Your task to perform on an android device: What's the weather like in New York? Image 0: 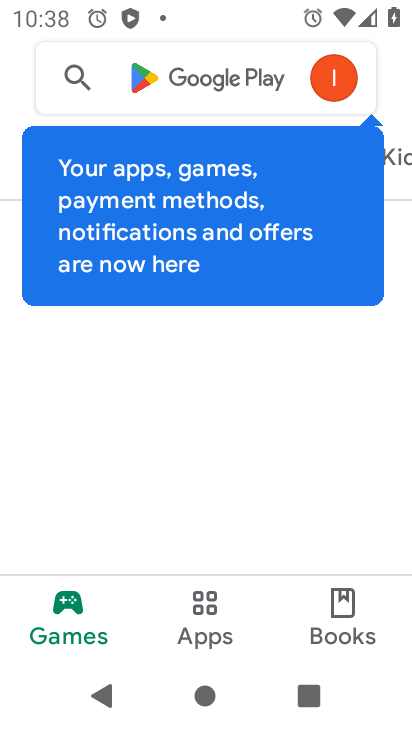
Step 0: press home button
Your task to perform on an android device: What's the weather like in New York? Image 1: 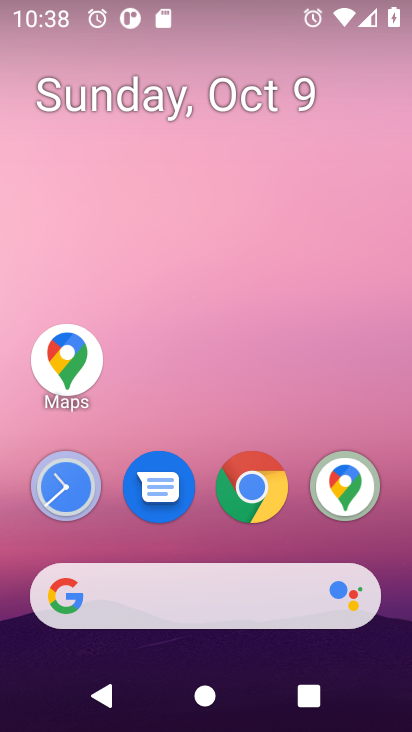
Step 1: click (252, 488)
Your task to perform on an android device: What's the weather like in New York? Image 2: 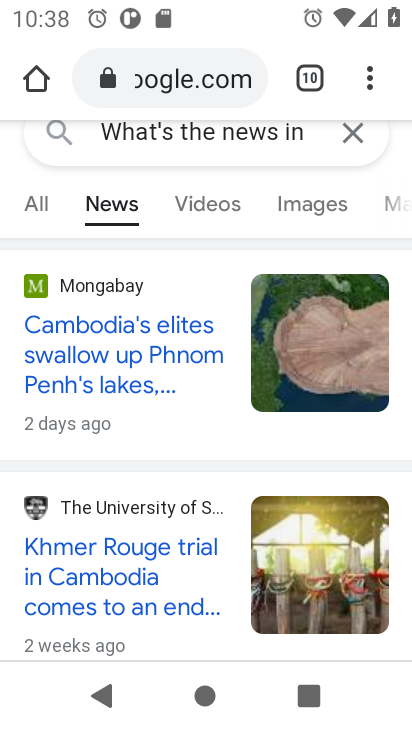
Step 2: click (351, 129)
Your task to perform on an android device: What's the weather like in New York? Image 3: 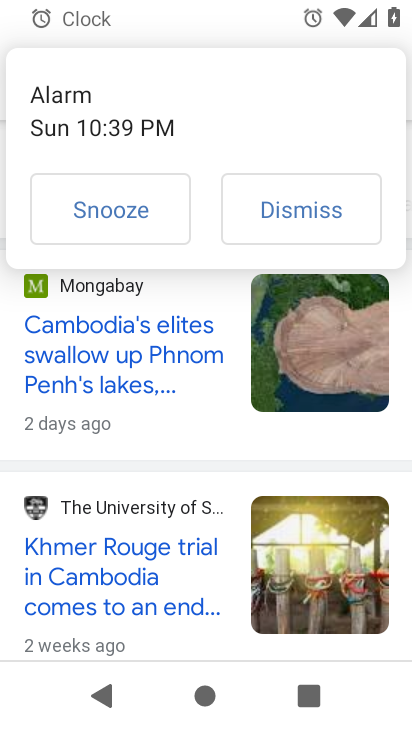
Step 3: click (121, 212)
Your task to perform on an android device: What's the weather like in New York? Image 4: 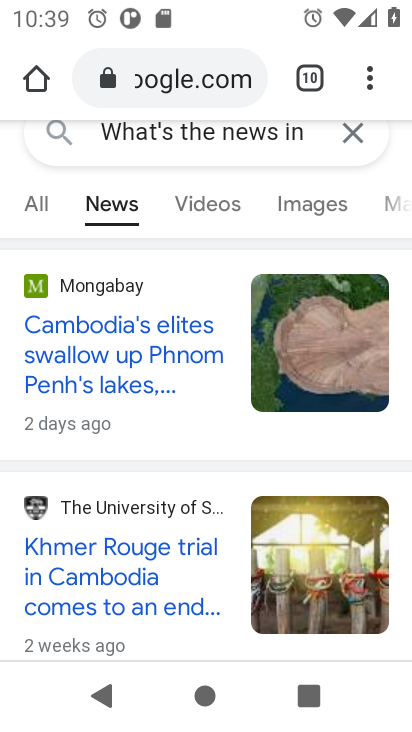
Step 4: click (347, 130)
Your task to perform on an android device: What's the weather like in New York? Image 5: 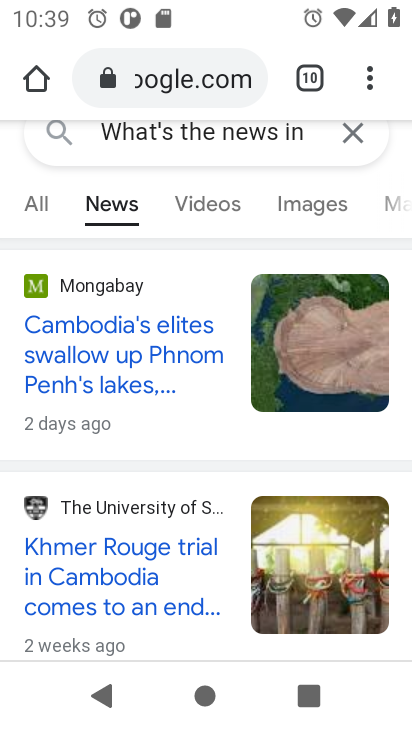
Step 5: click (351, 129)
Your task to perform on an android device: What's the weather like in New York? Image 6: 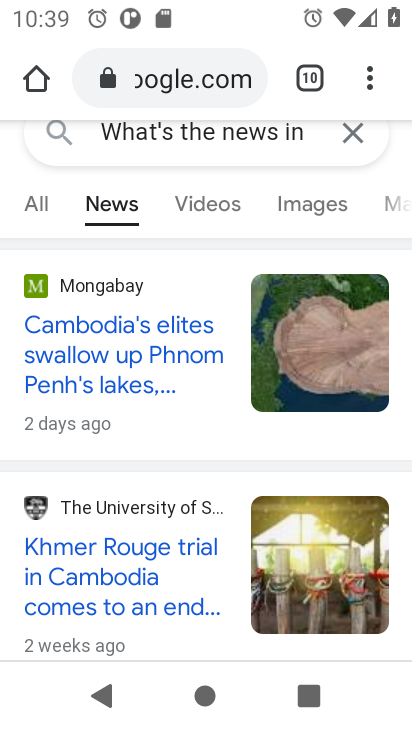
Step 6: click (351, 129)
Your task to perform on an android device: What's the weather like in New York? Image 7: 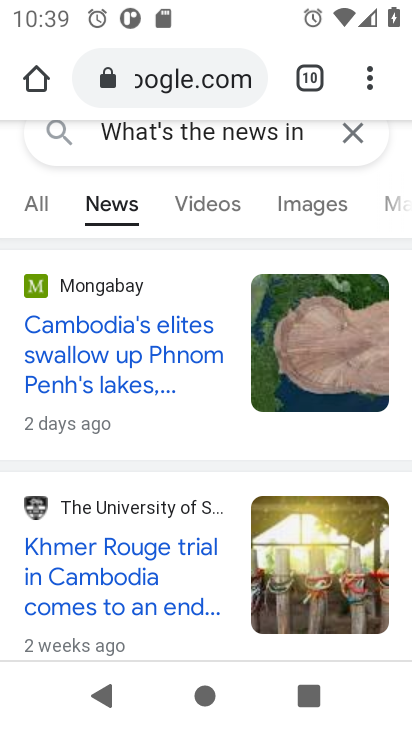
Step 7: drag from (197, 184) to (215, 458)
Your task to perform on an android device: What's the weather like in New York? Image 8: 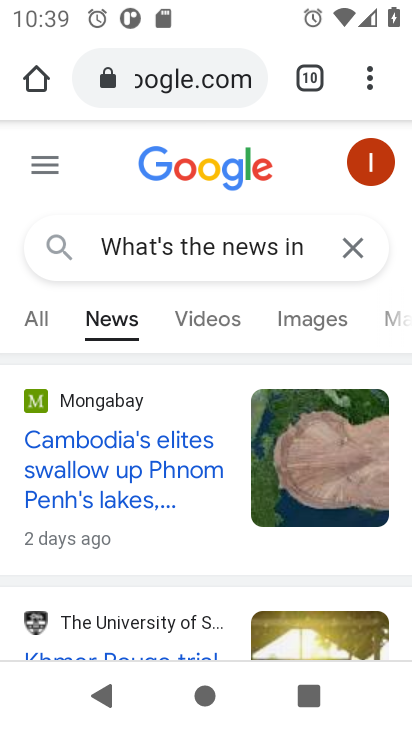
Step 8: click (356, 247)
Your task to perform on an android device: What's the weather like in New York? Image 9: 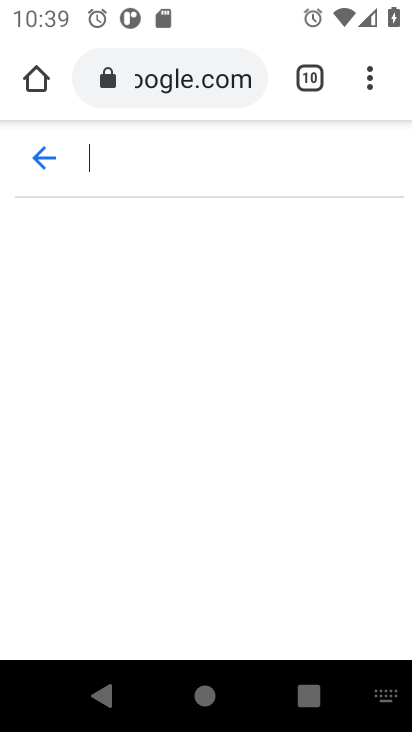
Step 9: type "What's the weather like in New York?"
Your task to perform on an android device: What's the weather like in New York? Image 10: 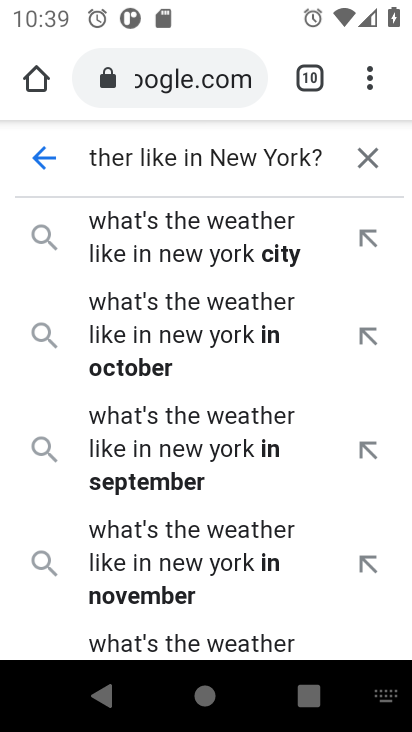
Step 10: click (243, 247)
Your task to perform on an android device: What's the weather like in New York? Image 11: 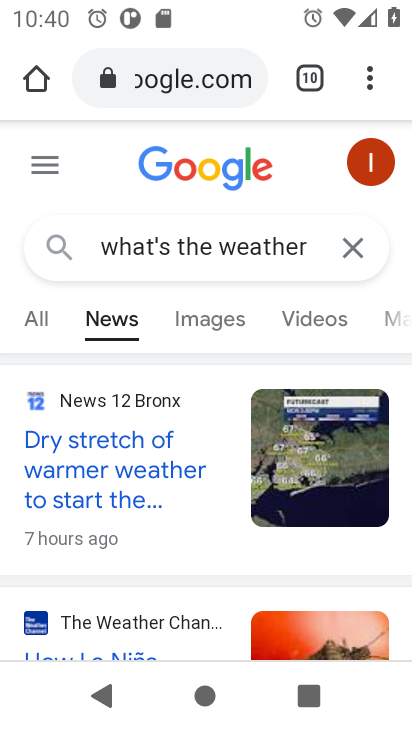
Step 11: click (31, 320)
Your task to perform on an android device: What's the weather like in New York? Image 12: 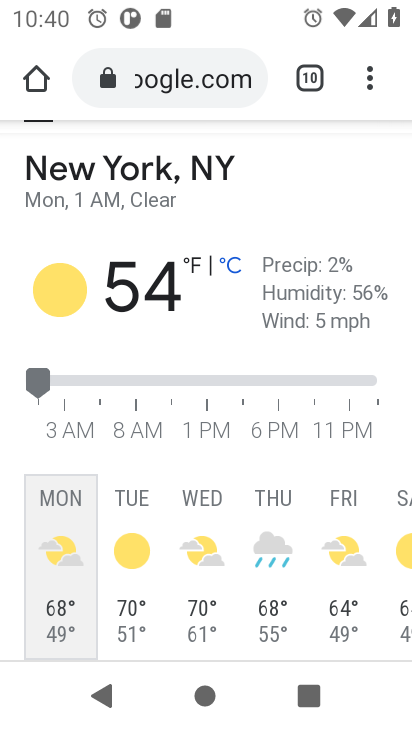
Step 12: task complete